Your task to perform on an android device: turn off location Image 0: 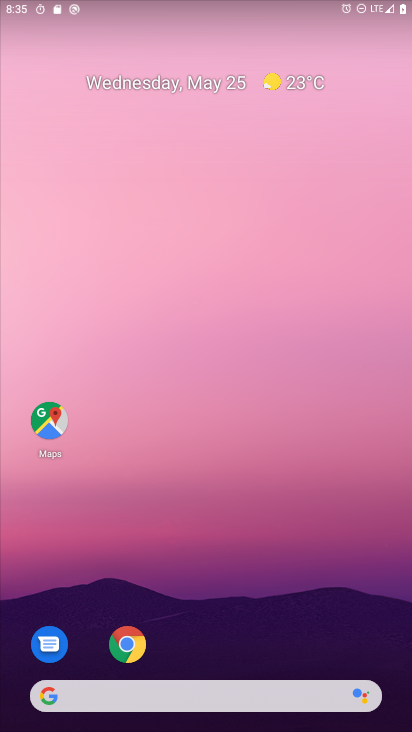
Step 0: drag from (342, 641) to (313, 39)
Your task to perform on an android device: turn off location Image 1: 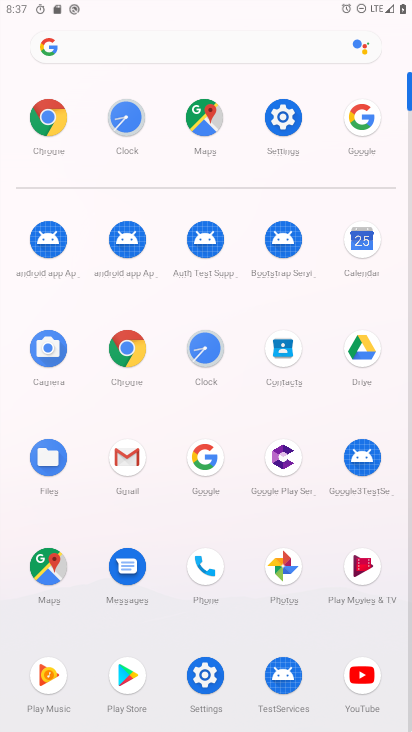
Step 1: click (187, 675)
Your task to perform on an android device: turn off location Image 2: 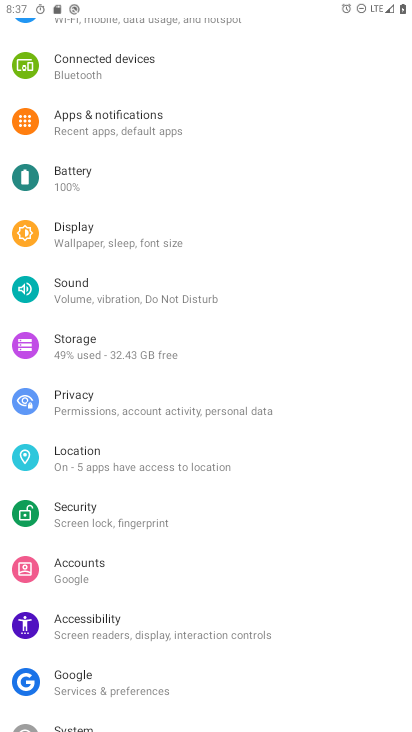
Step 2: click (104, 483)
Your task to perform on an android device: turn off location Image 3: 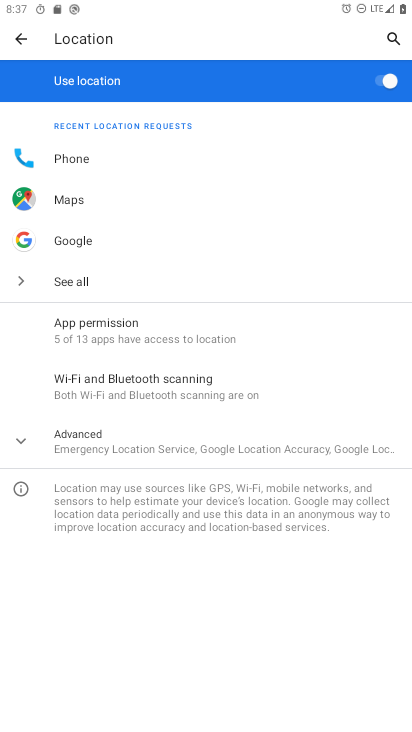
Step 3: click (372, 69)
Your task to perform on an android device: turn off location Image 4: 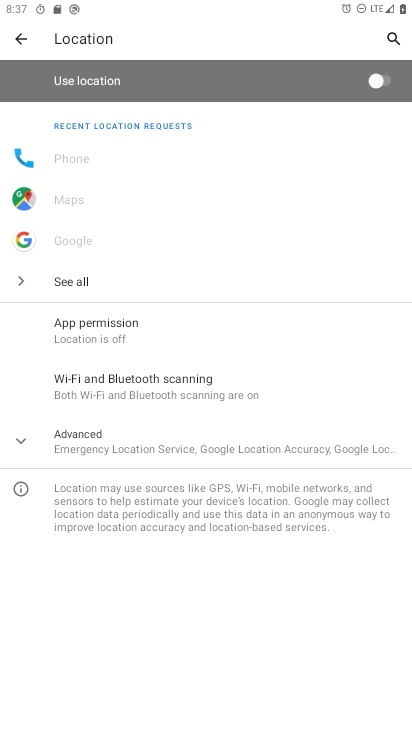
Step 4: task complete